Your task to perform on an android device: What's on my calendar tomorrow? Image 0: 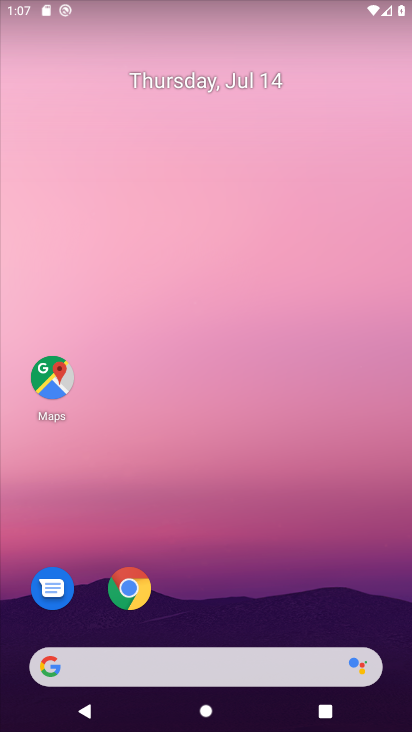
Step 0: drag from (281, 592) to (231, 89)
Your task to perform on an android device: What's on my calendar tomorrow? Image 1: 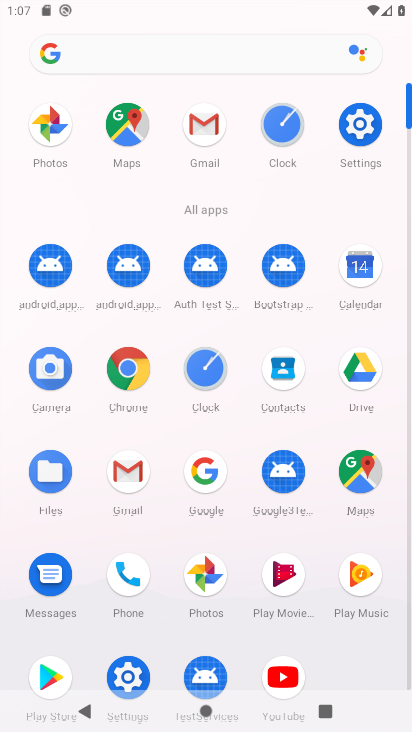
Step 1: click (371, 255)
Your task to perform on an android device: What's on my calendar tomorrow? Image 2: 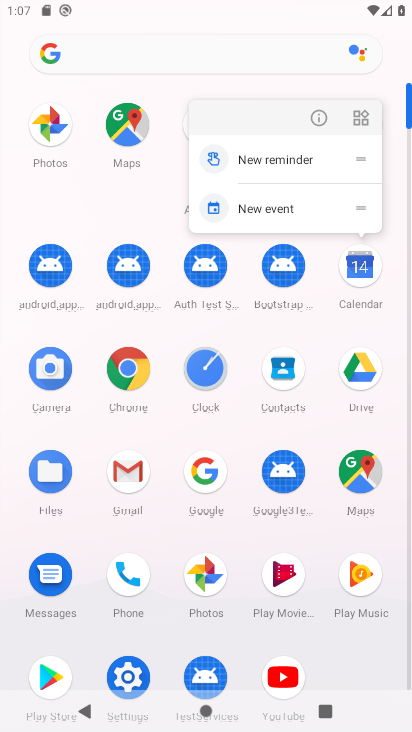
Step 2: click (365, 269)
Your task to perform on an android device: What's on my calendar tomorrow? Image 3: 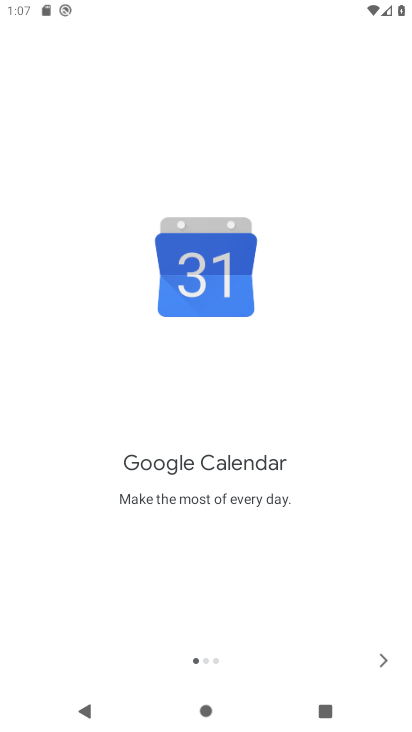
Step 3: click (393, 666)
Your task to perform on an android device: What's on my calendar tomorrow? Image 4: 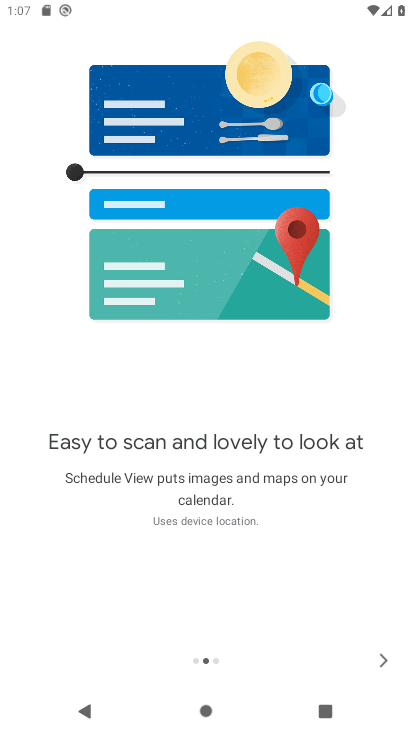
Step 4: click (392, 666)
Your task to perform on an android device: What's on my calendar tomorrow? Image 5: 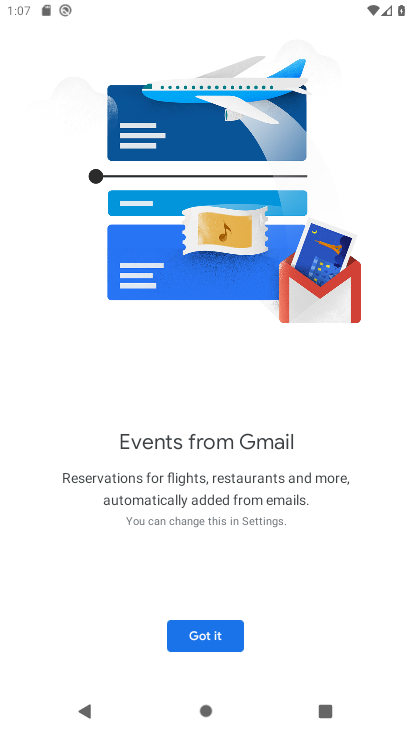
Step 5: click (230, 641)
Your task to perform on an android device: What's on my calendar tomorrow? Image 6: 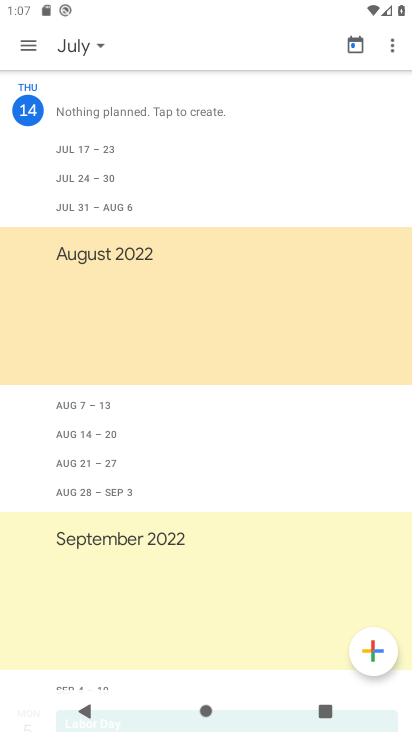
Step 6: click (32, 44)
Your task to perform on an android device: What's on my calendar tomorrow? Image 7: 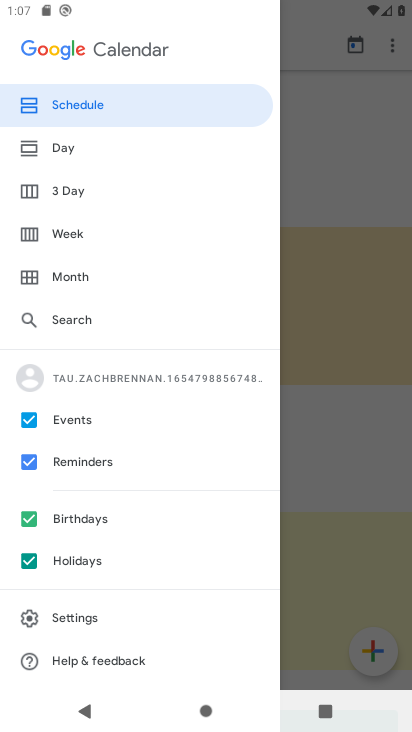
Step 7: click (72, 133)
Your task to perform on an android device: What's on my calendar tomorrow? Image 8: 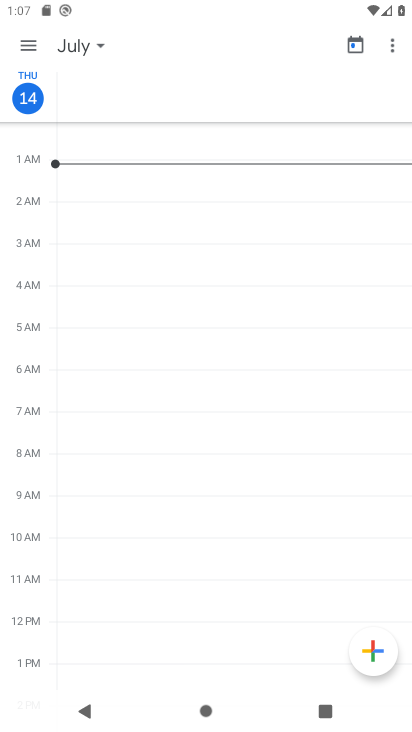
Step 8: click (81, 34)
Your task to perform on an android device: What's on my calendar tomorrow? Image 9: 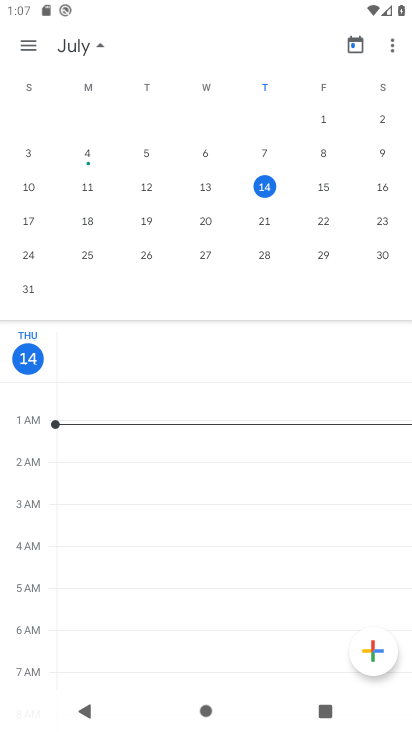
Step 9: click (327, 181)
Your task to perform on an android device: What's on my calendar tomorrow? Image 10: 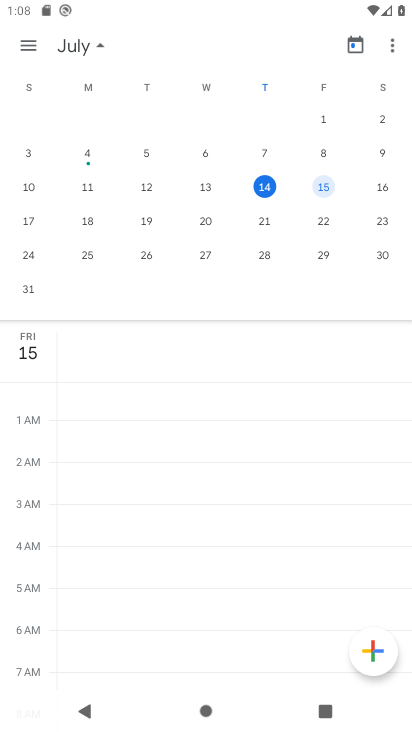
Step 10: task complete